Your task to perform on an android device: Open eBay Image 0: 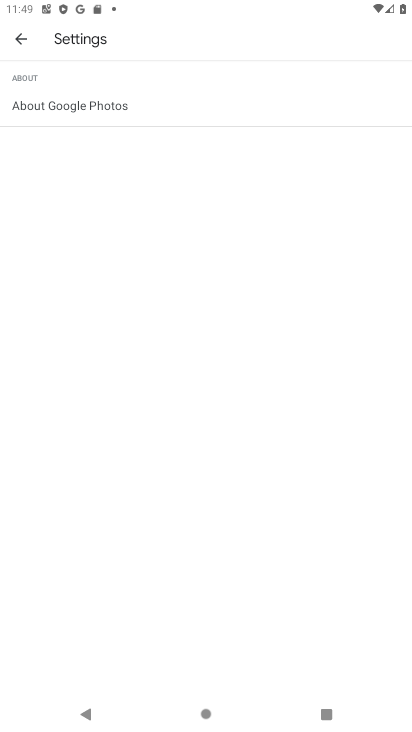
Step 0: press home button
Your task to perform on an android device: Open eBay Image 1: 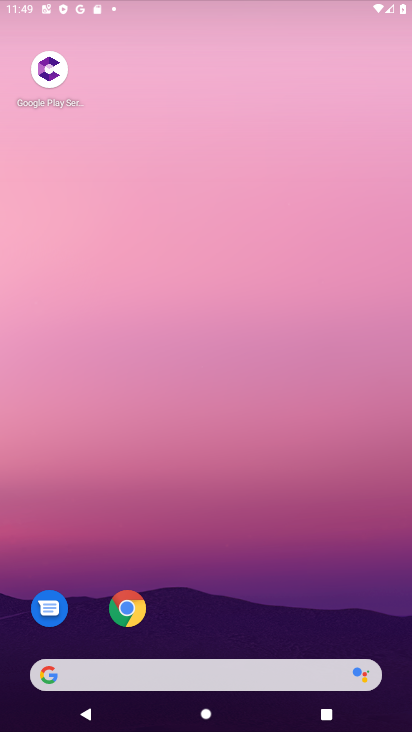
Step 1: drag from (214, 550) to (249, 53)
Your task to perform on an android device: Open eBay Image 2: 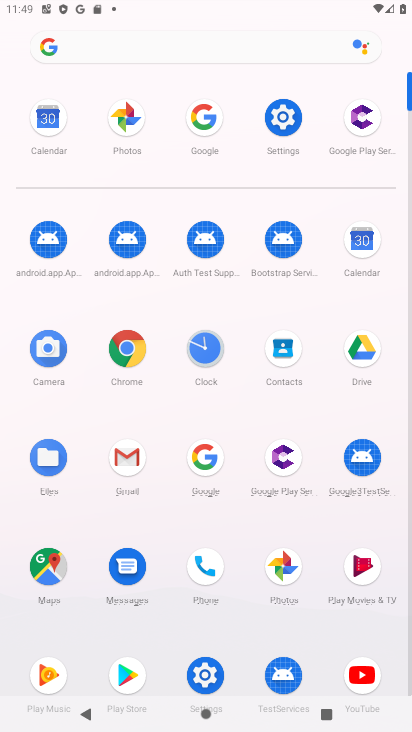
Step 2: click (209, 109)
Your task to perform on an android device: Open eBay Image 3: 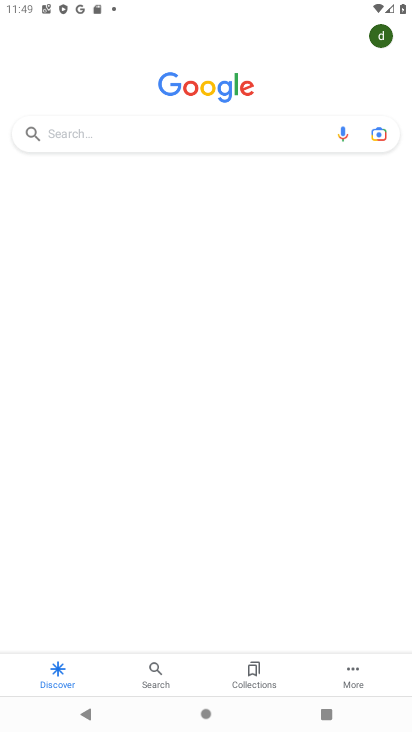
Step 3: click (147, 135)
Your task to perform on an android device: Open eBay Image 4: 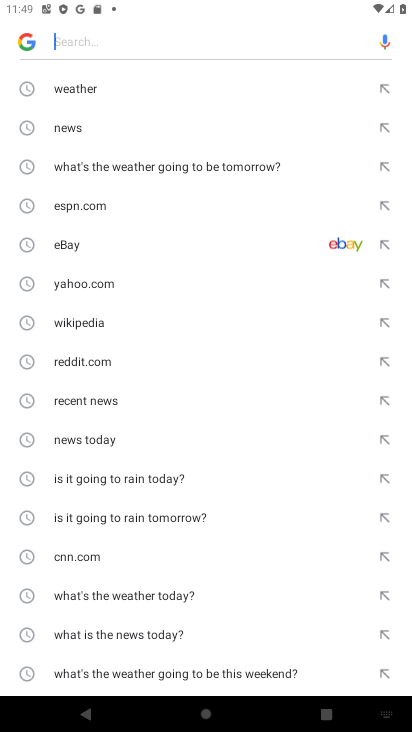
Step 4: click (91, 250)
Your task to perform on an android device: Open eBay Image 5: 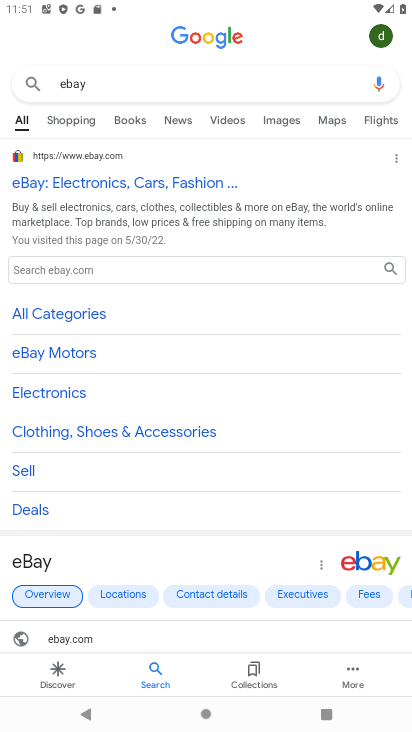
Step 5: task complete